Your task to perform on an android device: Show me popular videos on Youtube Image 0: 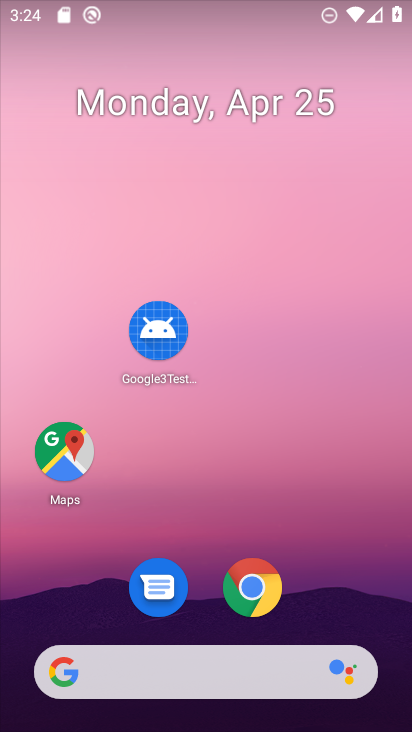
Step 0: drag from (178, 646) to (281, 147)
Your task to perform on an android device: Show me popular videos on Youtube Image 1: 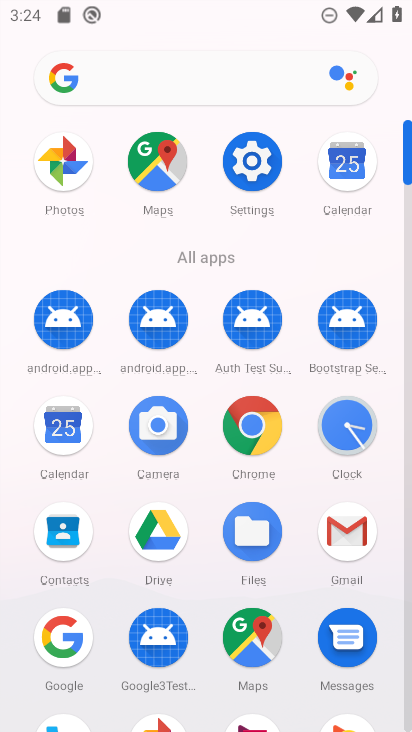
Step 1: drag from (222, 610) to (288, 309)
Your task to perform on an android device: Show me popular videos on Youtube Image 2: 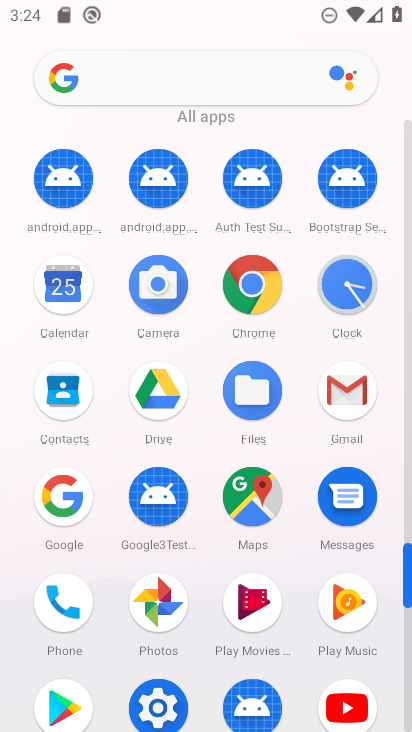
Step 2: click (355, 707)
Your task to perform on an android device: Show me popular videos on Youtube Image 3: 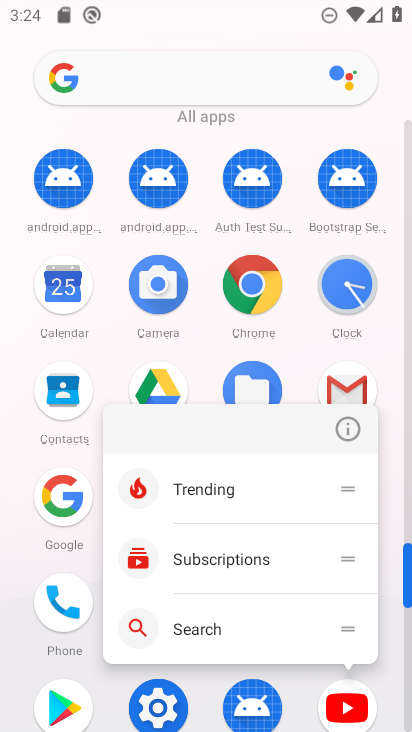
Step 3: click (355, 707)
Your task to perform on an android device: Show me popular videos on Youtube Image 4: 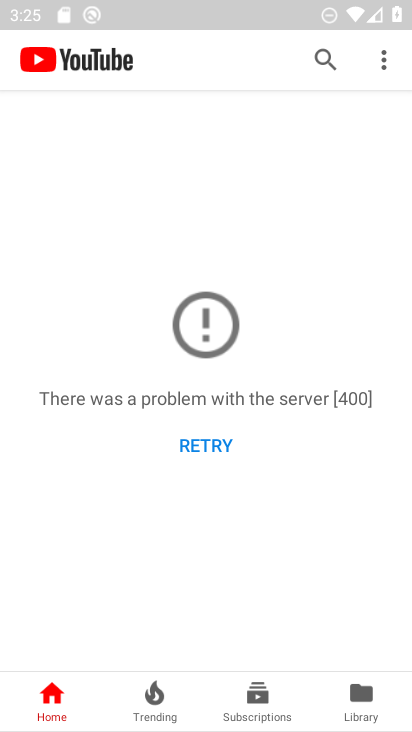
Step 4: click (158, 705)
Your task to perform on an android device: Show me popular videos on Youtube Image 5: 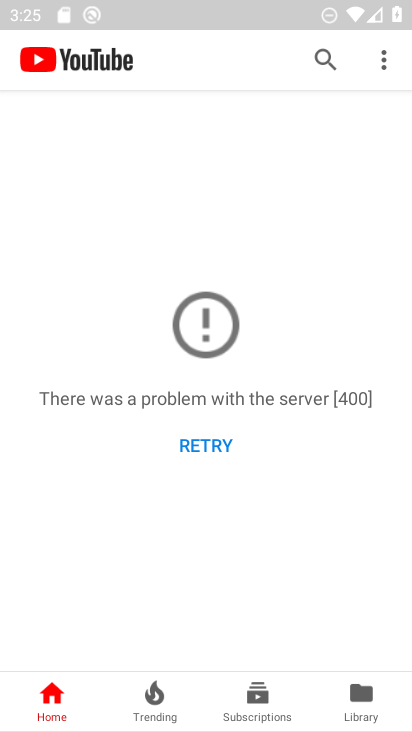
Step 5: click (158, 705)
Your task to perform on an android device: Show me popular videos on Youtube Image 6: 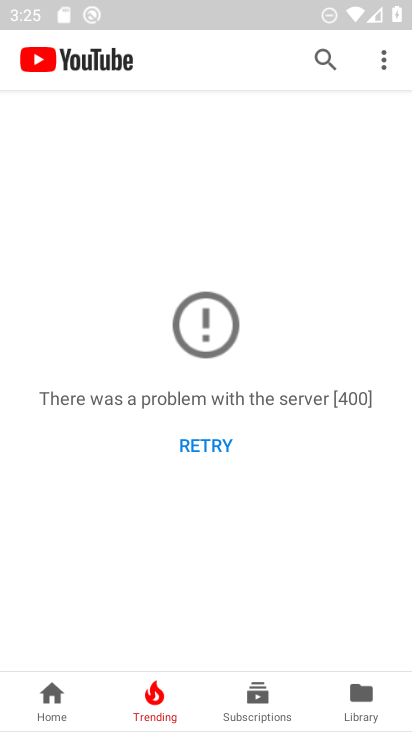
Step 6: task complete